Your task to perform on an android device: Show me popular games on the Play Store Image 0: 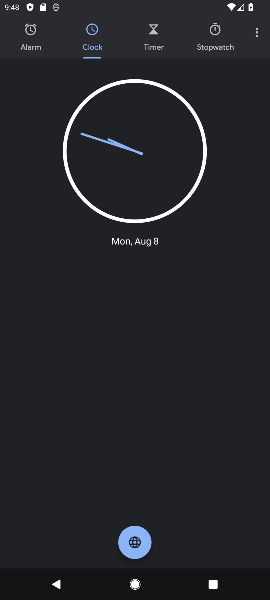
Step 0: press back button
Your task to perform on an android device: Show me popular games on the Play Store Image 1: 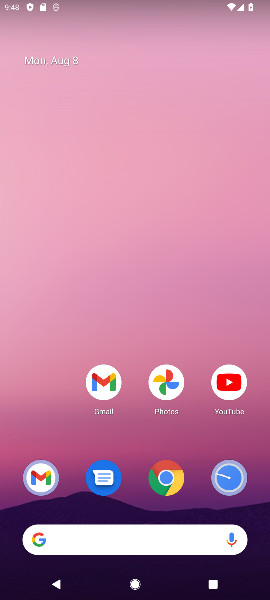
Step 1: drag from (135, 479) to (167, 13)
Your task to perform on an android device: Show me popular games on the Play Store Image 2: 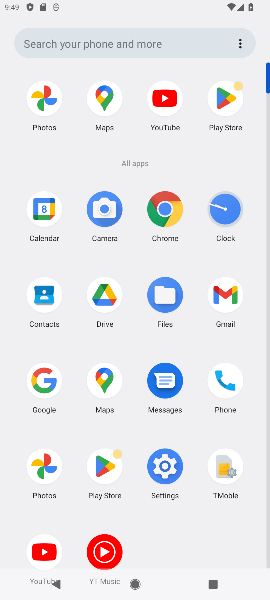
Step 2: click (103, 476)
Your task to perform on an android device: Show me popular games on the Play Store Image 3: 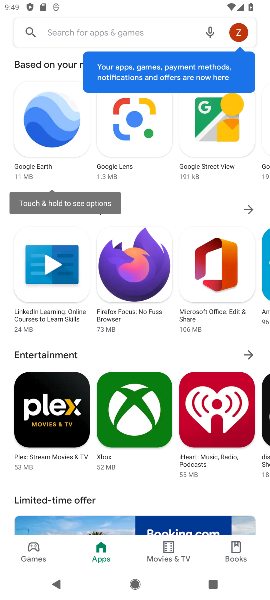
Step 3: click (33, 558)
Your task to perform on an android device: Show me popular games on the Play Store Image 4: 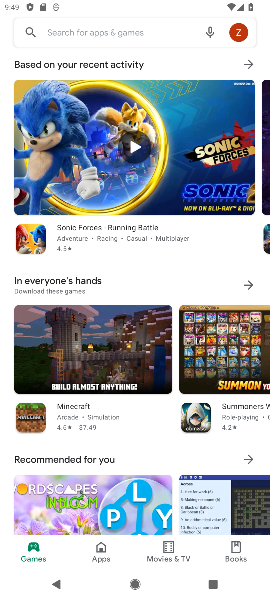
Step 4: task complete